Your task to perform on an android device: Go to Google Image 0: 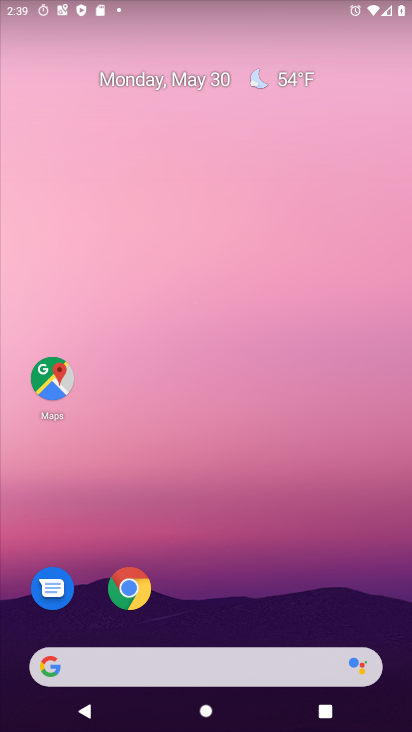
Step 0: drag from (229, 606) to (217, 109)
Your task to perform on an android device: Go to Google Image 1: 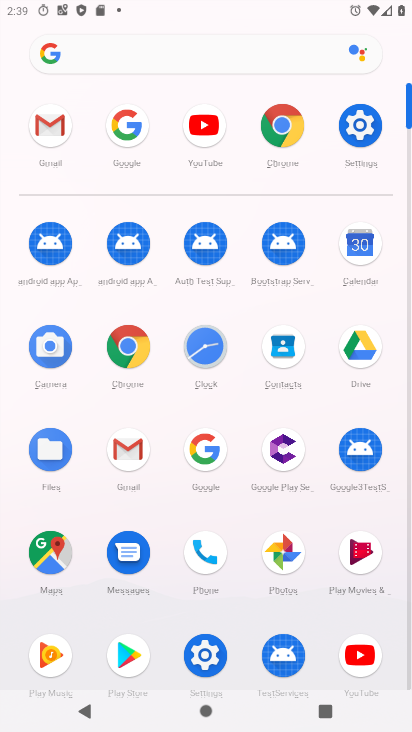
Step 1: click (213, 445)
Your task to perform on an android device: Go to Google Image 2: 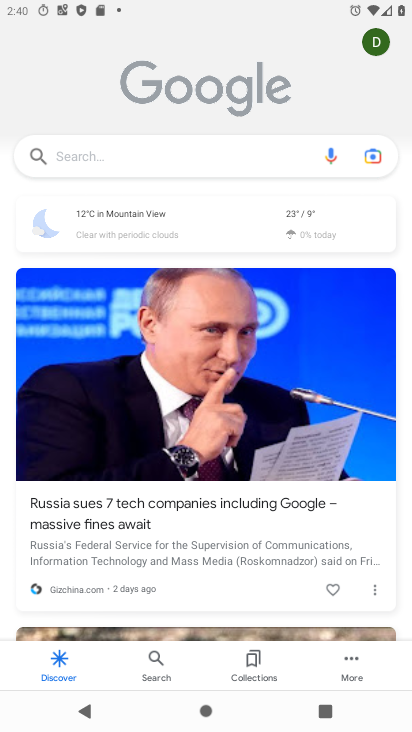
Step 2: task complete